Your task to perform on an android device: show emergency info Image 0: 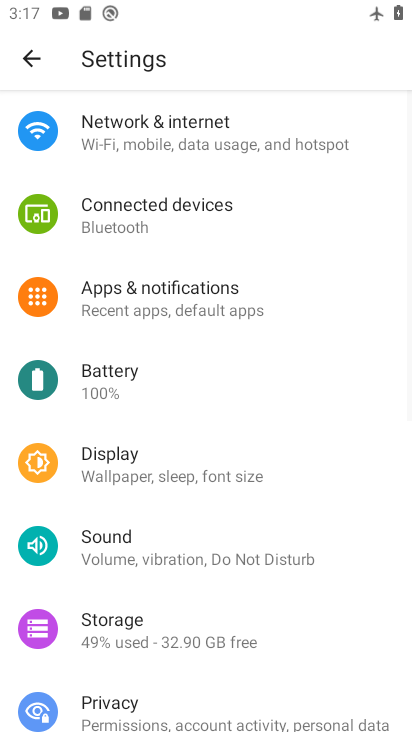
Step 0: drag from (181, 504) to (214, 5)
Your task to perform on an android device: show emergency info Image 1: 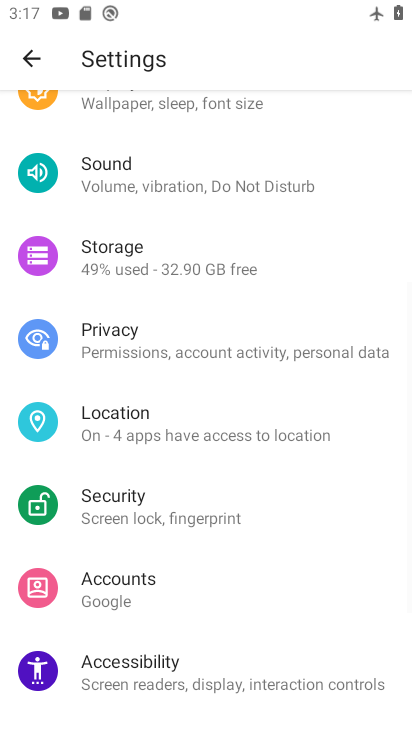
Step 1: drag from (272, 528) to (340, 91)
Your task to perform on an android device: show emergency info Image 2: 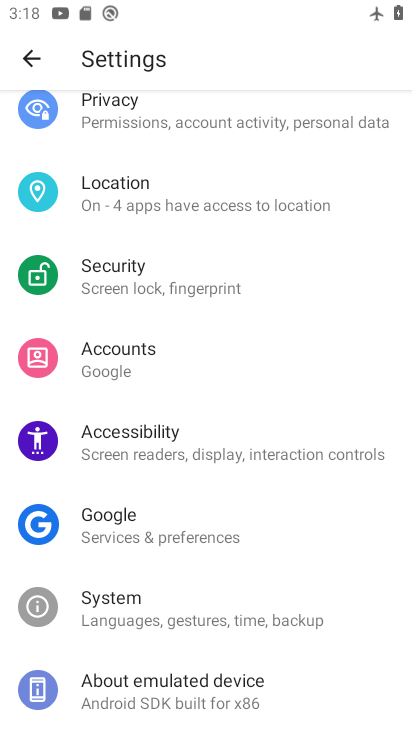
Step 2: drag from (255, 627) to (291, 173)
Your task to perform on an android device: show emergency info Image 3: 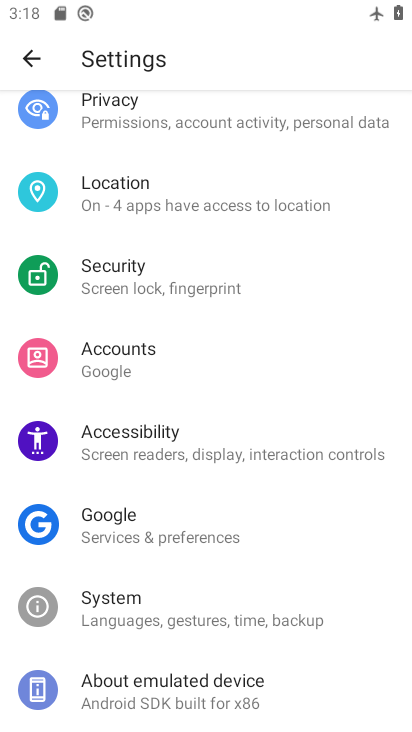
Step 3: drag from (210, 639) to (225, 167)
Your task to perform on an android device: show emergency info Image 4: 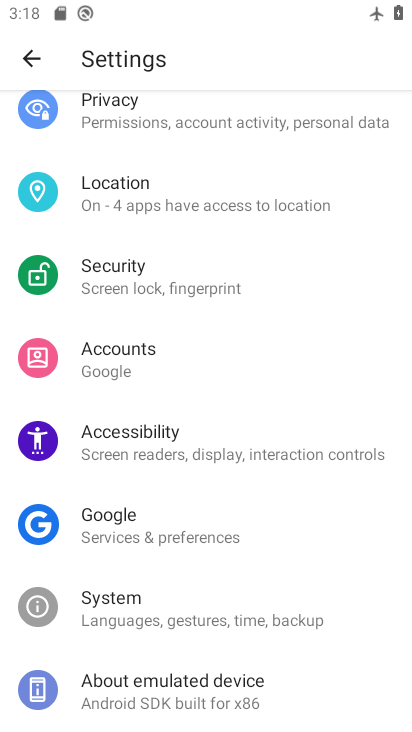
Step 4: click (221, 728)
Your task to perform on an android device: show emergency info Image 5: 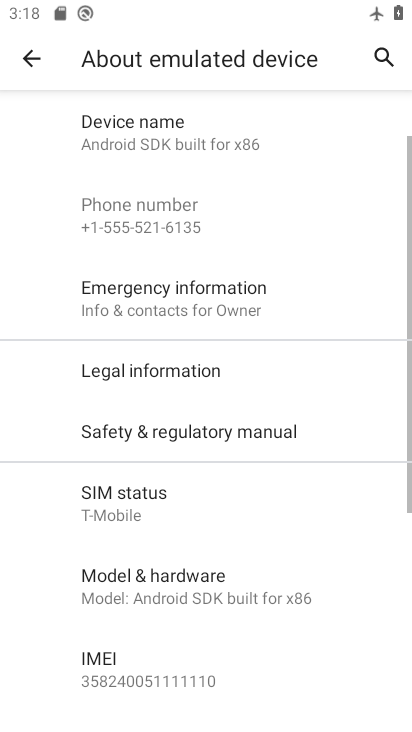
Step 5: click (173, 295)
Your task to perform on an android device: show emergency info Image 6: 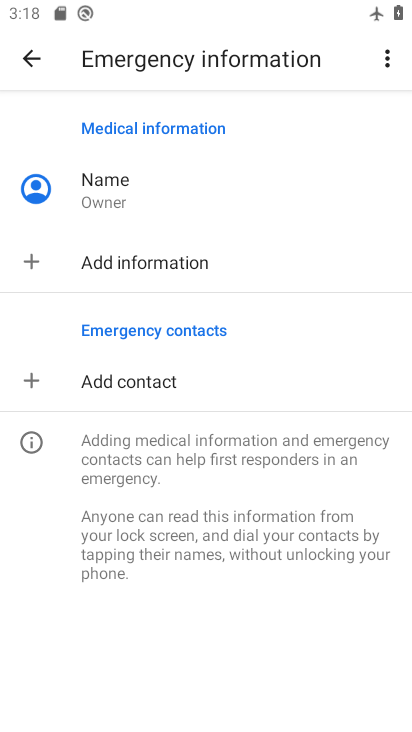
Step 6: task complete